Your task to perform on an android device: Show me popular videos on Youtube Image 0: 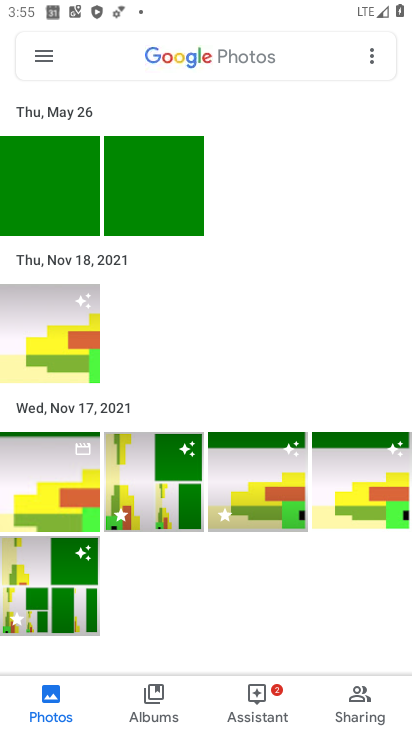
Step 0: press home button
Your task to perform on an android device: Show me popular videos on Youtube Image 1: 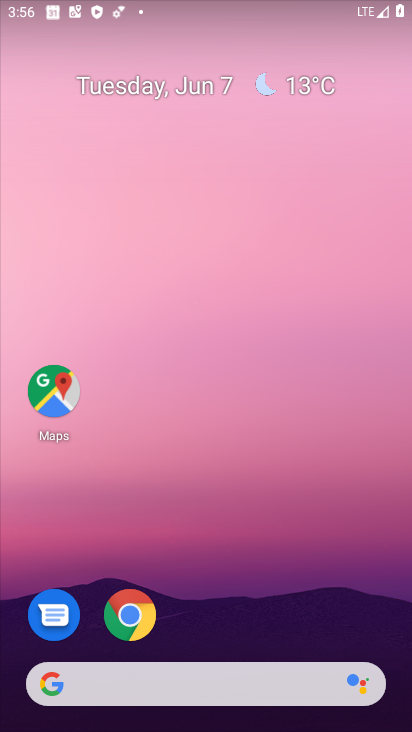
Step 1: drag from (244, 724) to (231, 33)
Your task to perform on an android device: Show me popular videos on Youtube Image 2: 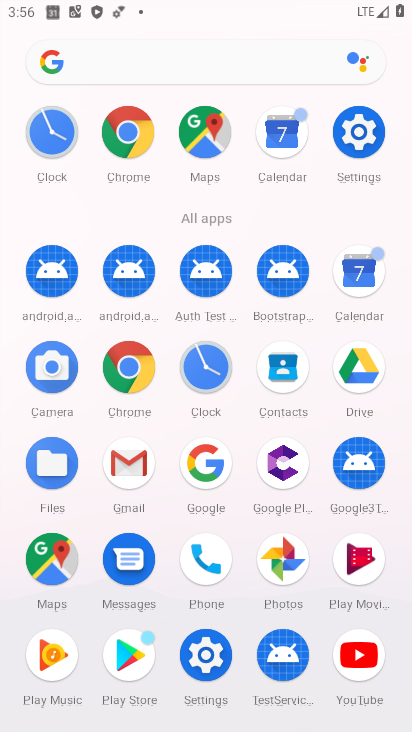
Step 2: click (356, 659)
Your task to perform on an android device: Show me popular videos on Youtube Image 3: 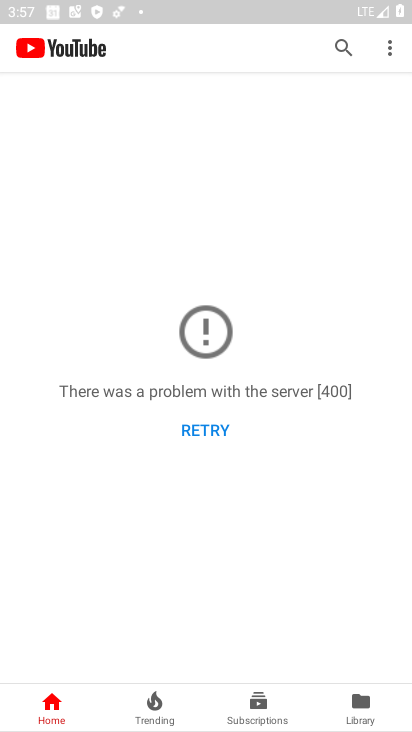
Step 3: click (342, 38)
Your task to perform on an android device: Show me popular videos on Youtube Image 4: 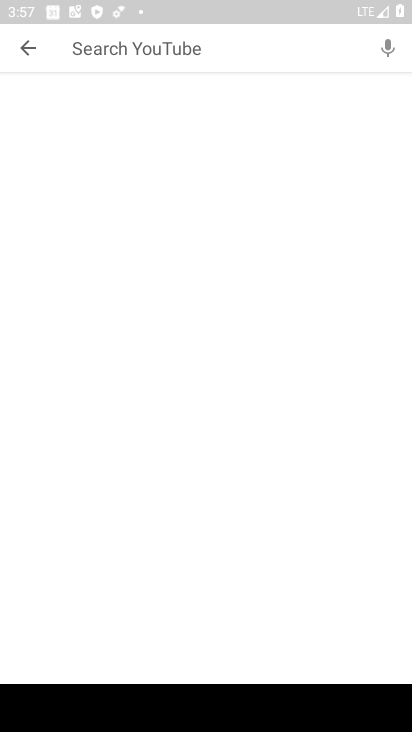
Step 4: type "popular videos on youtube"
Your task to perform on an android device: Show me popular videos on Youtube Image 5: 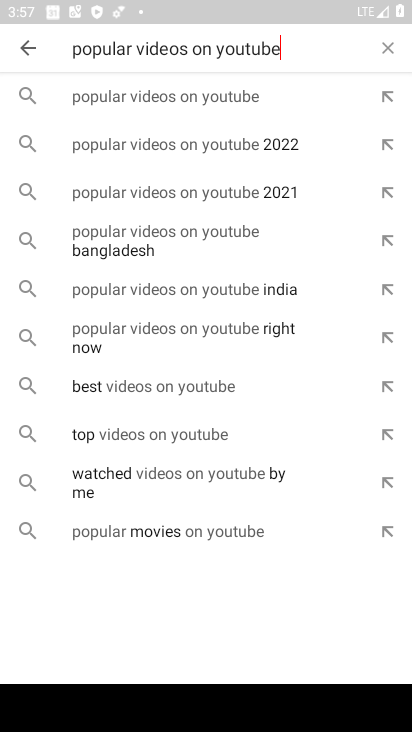
Step 5: click (156, 96)
Your task to perform on an android device: Show me popular videos on Youtube Image 6: 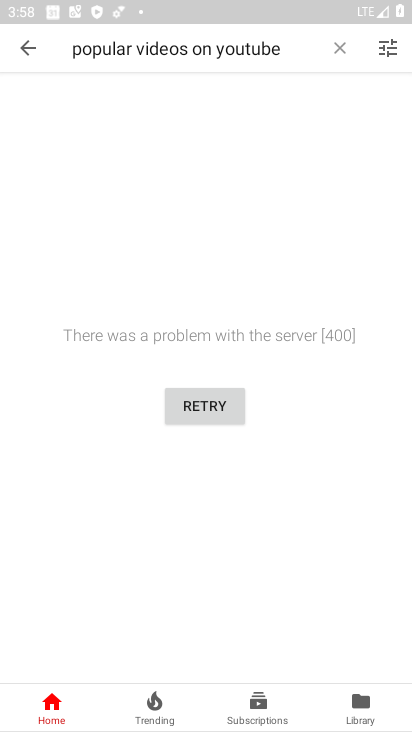
Step 6: task complete